Your task to perform on an android device: uninstall "Spotify" Image 0: 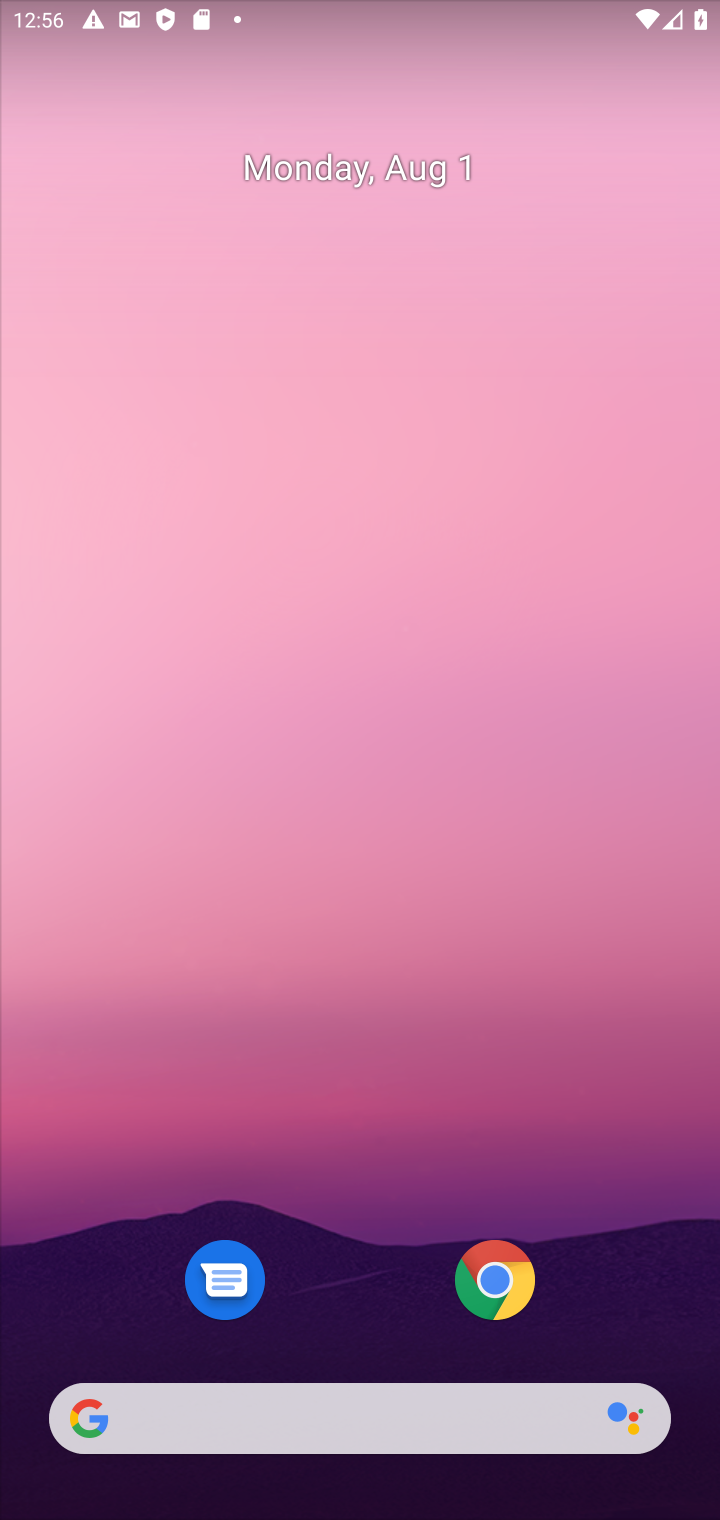
Step 0: drag from (273, 863) to (395, 220)
Your task to perform on an android device: uninstall "Spotify" Image 1: 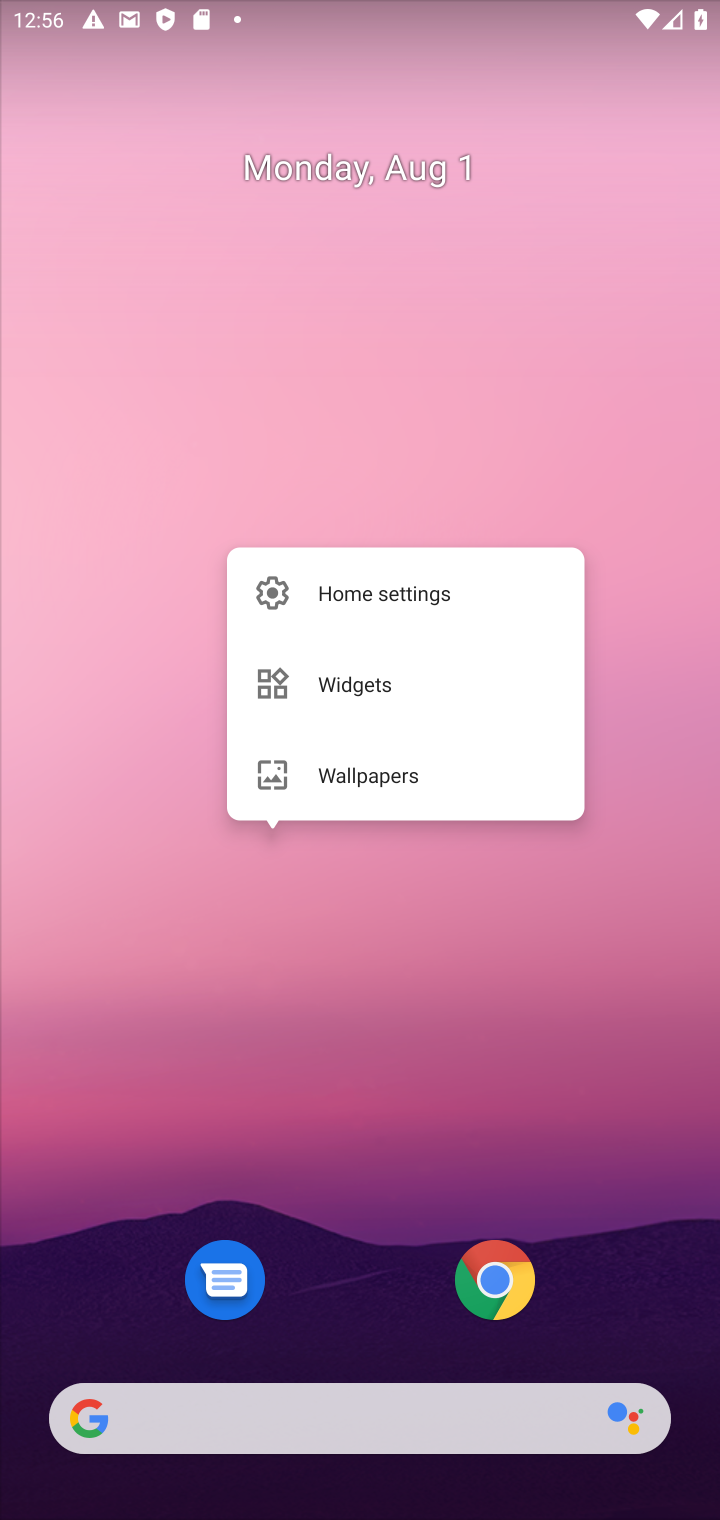
Step 1: click (621, 977)
Your task to perform on an android device: uninstall "Spotify" Image 2: 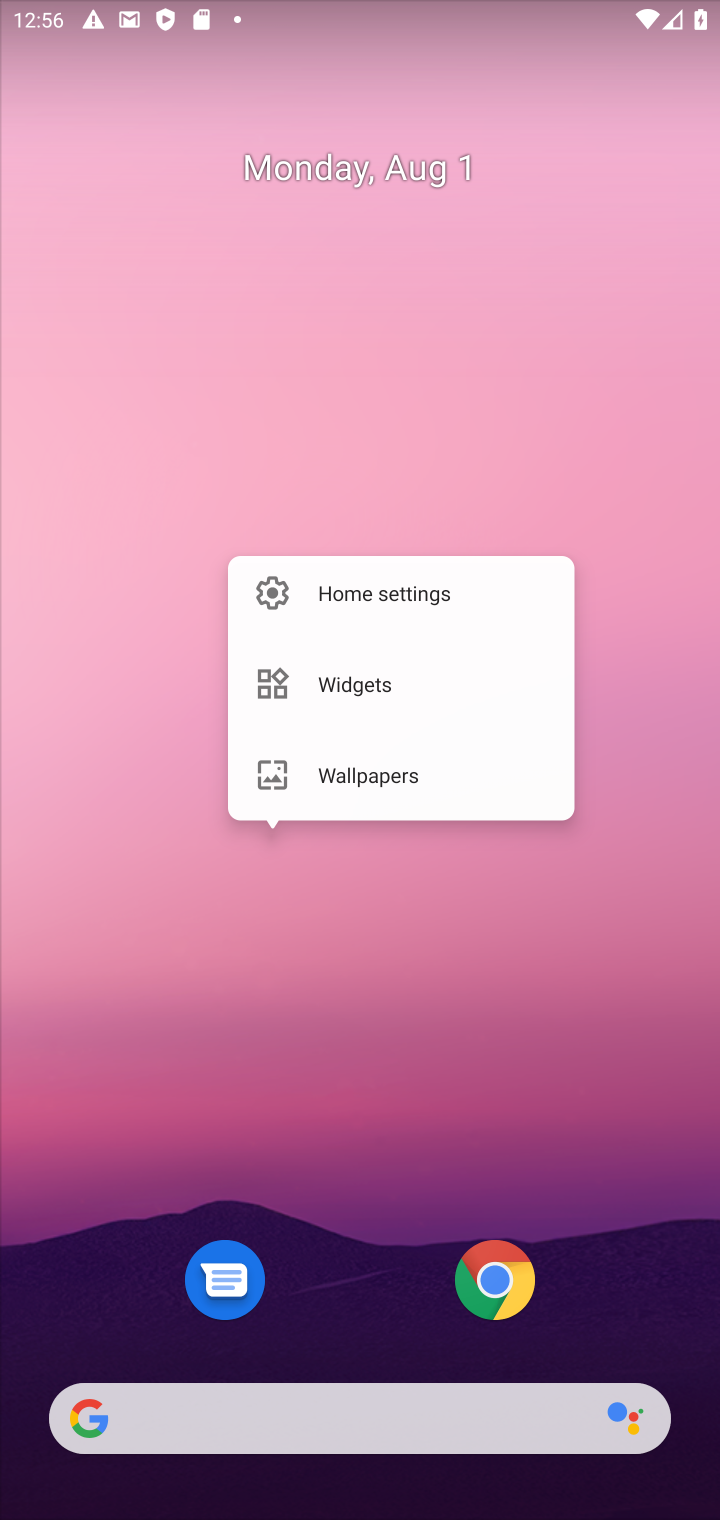
Step 2: drag from (623, 985) to (518, 56)
Your task to perform on an android device: uninstall "Spotify" Image 3: 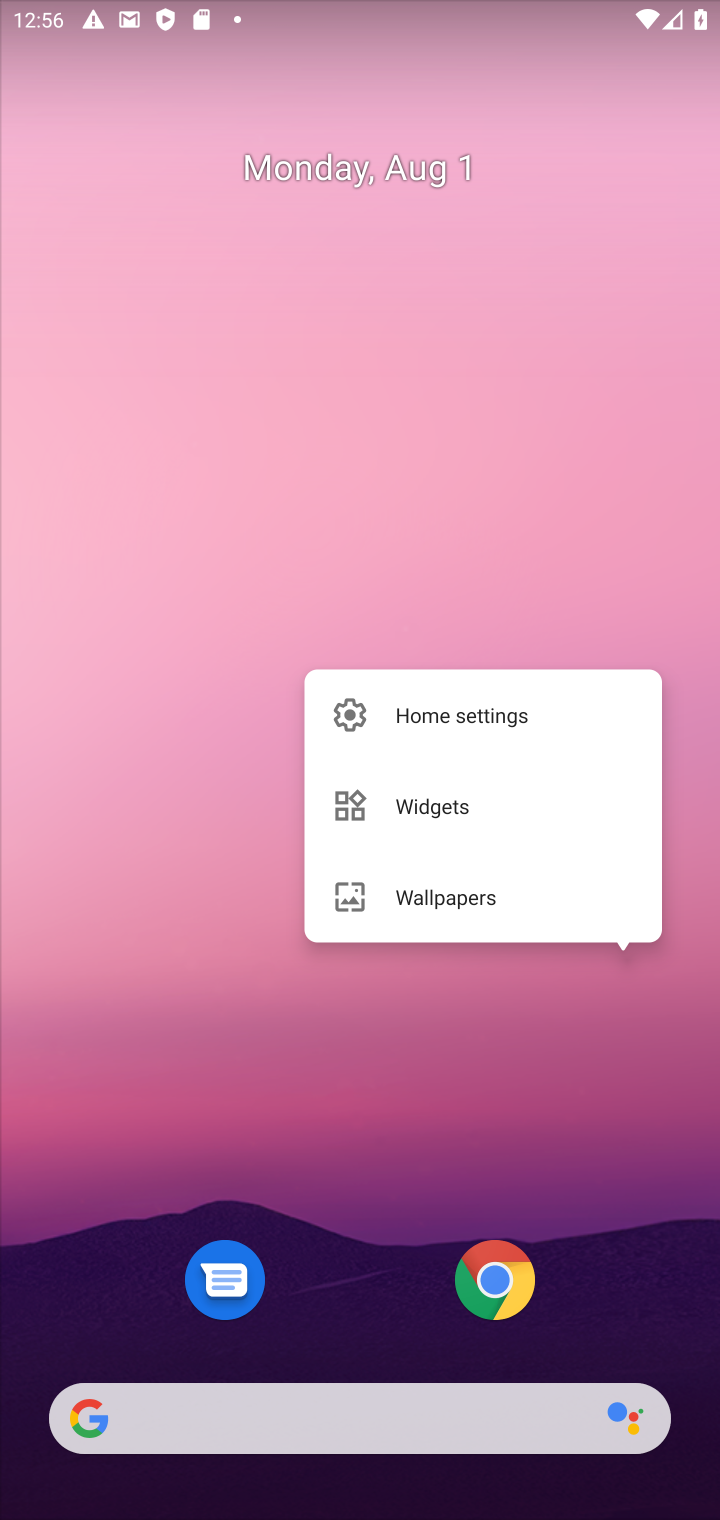
Step 3: click (498, 296)
Your task to perform on an android device: uninstall "Spotify" Image 4: 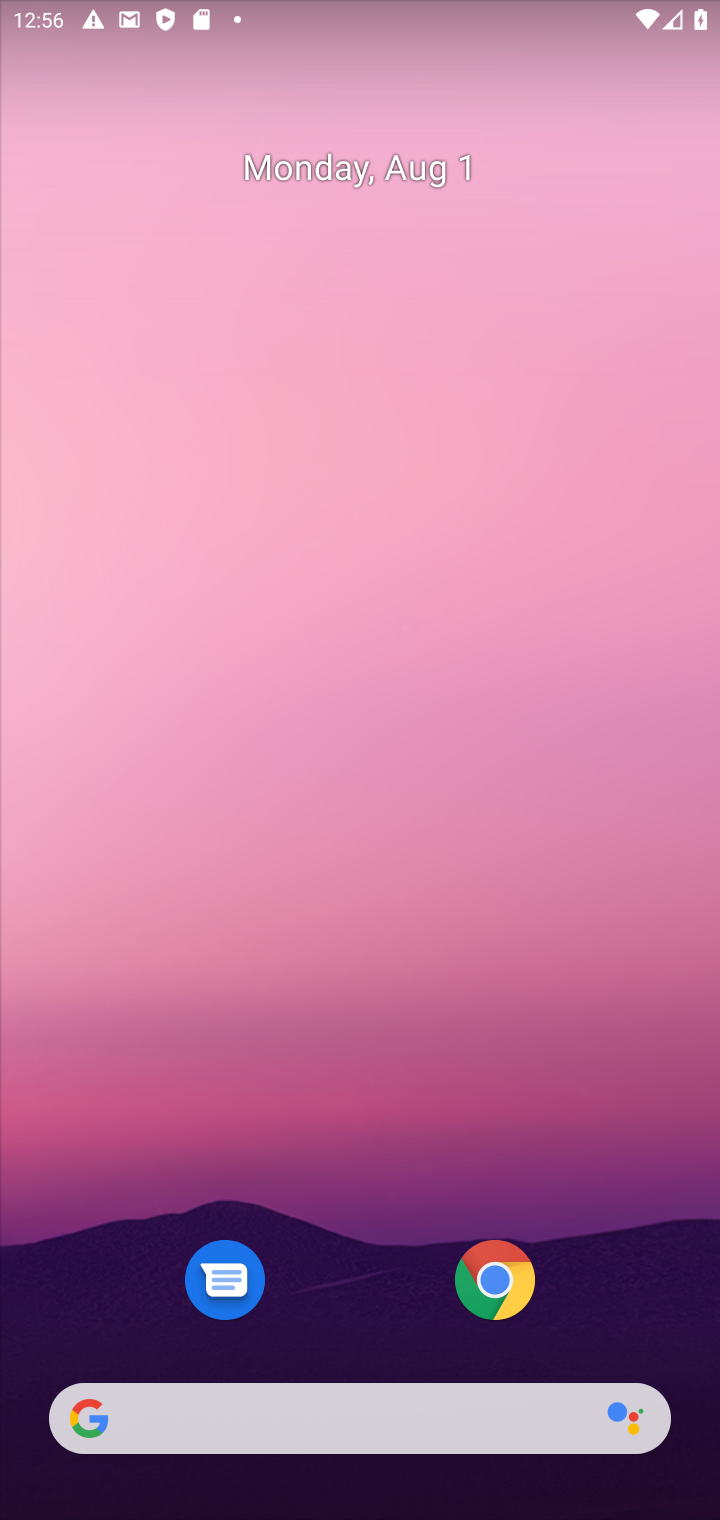
Step 4: drag from (409, 1293) to (477, 63)
Your task to perform on an android device: uninstall "Spotify" Image 5: 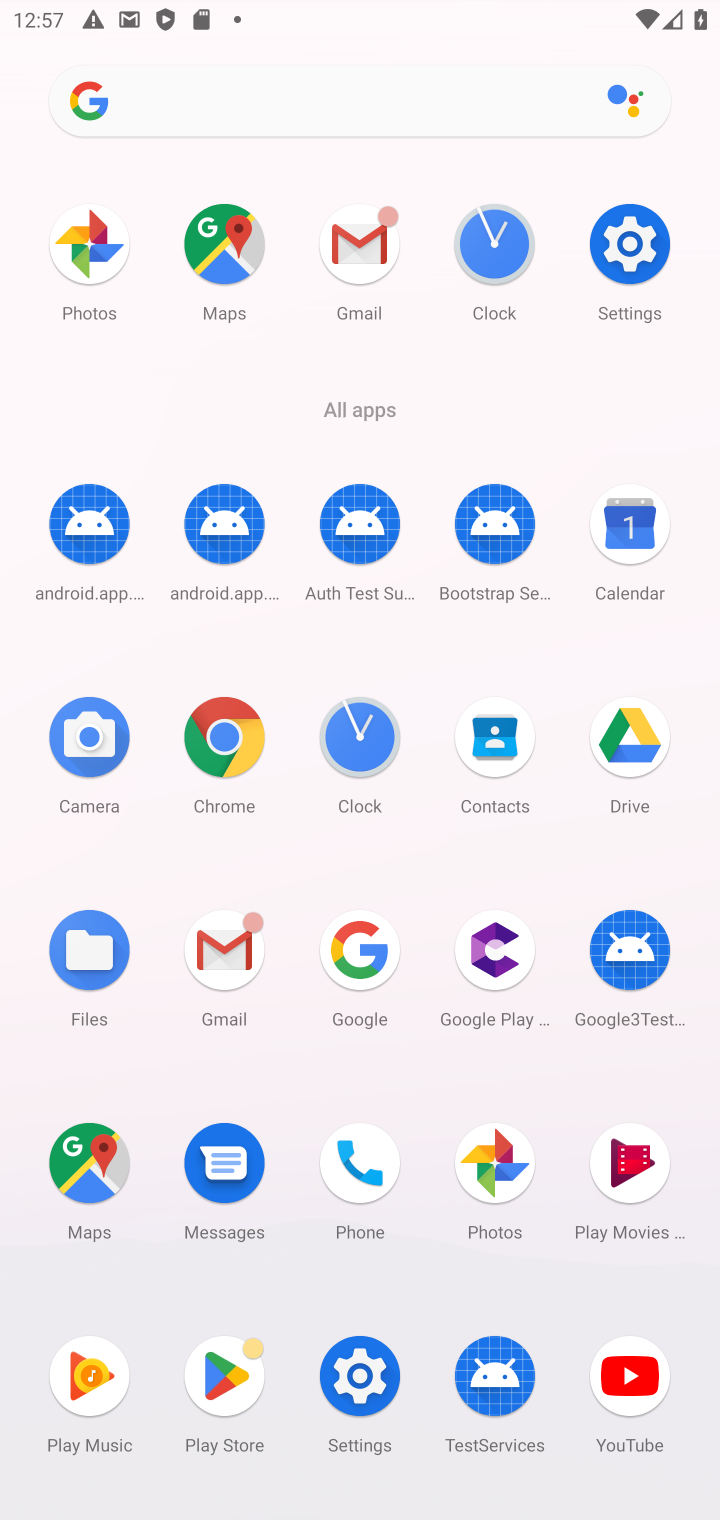
Step 5: click (235, 1360)
Your task to perform on an android device: uninstall "Spotify" Image 6: 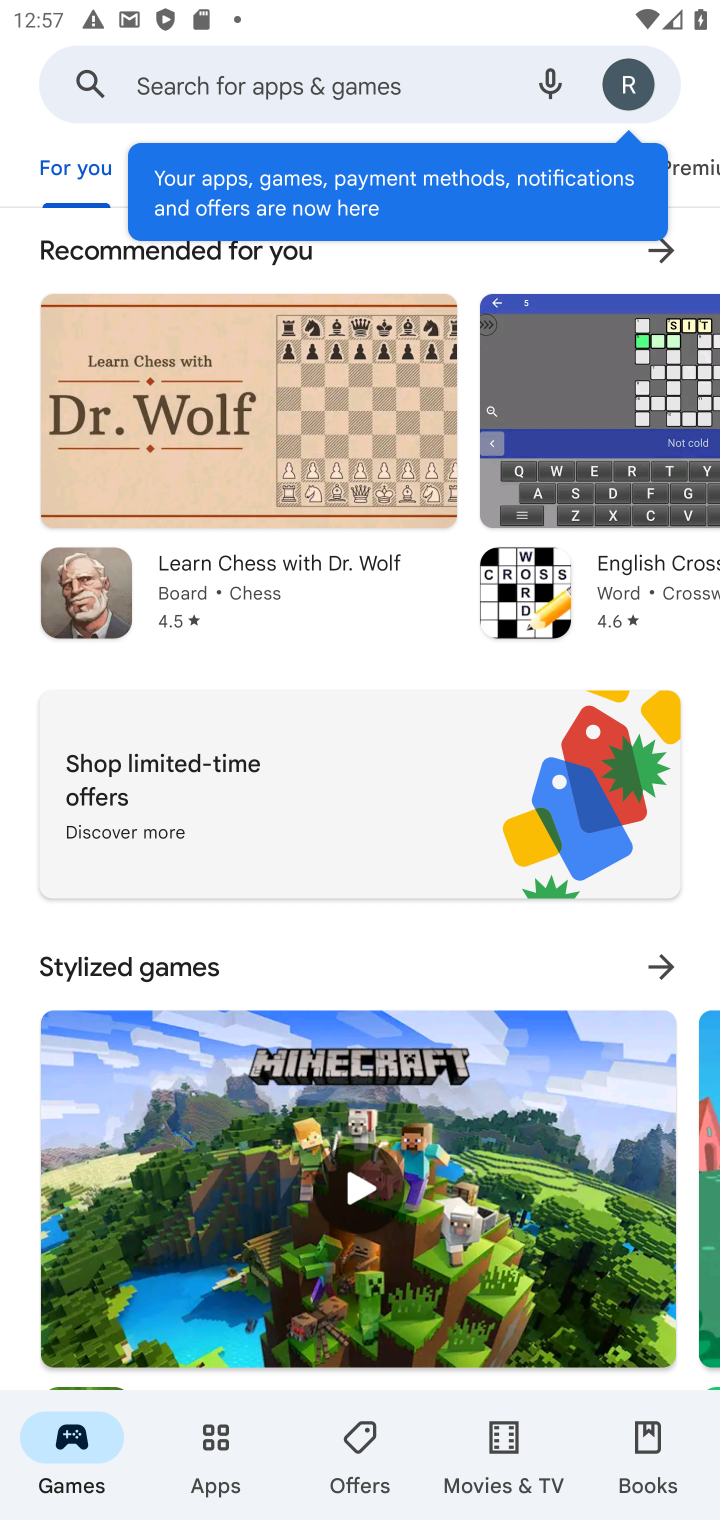
Step 6: click (320, 96)
Your task to perform on an android device: uninstall "Spotify" Image 7: 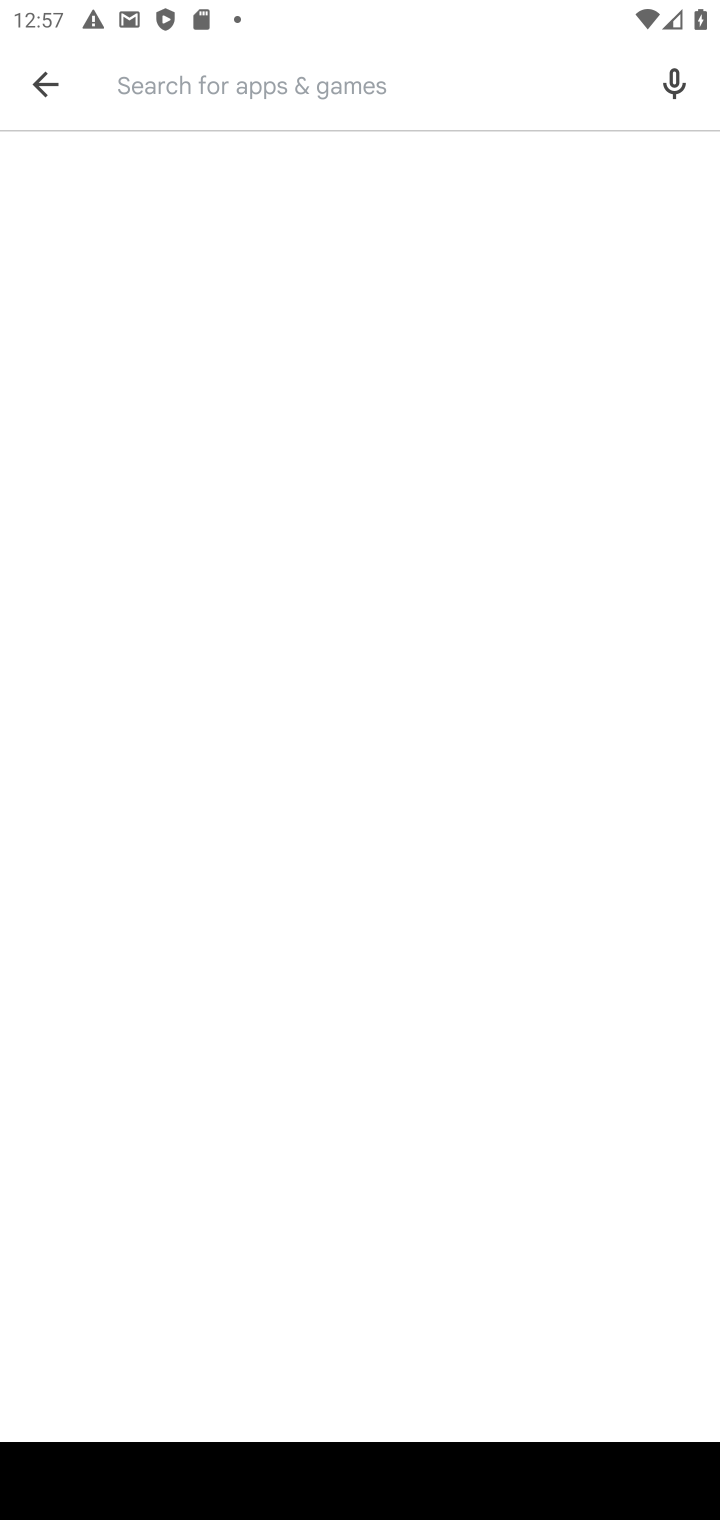
Step 7: type "Spotify"
Your task to perform on an android device: uninstall "Spotify" Image 8: 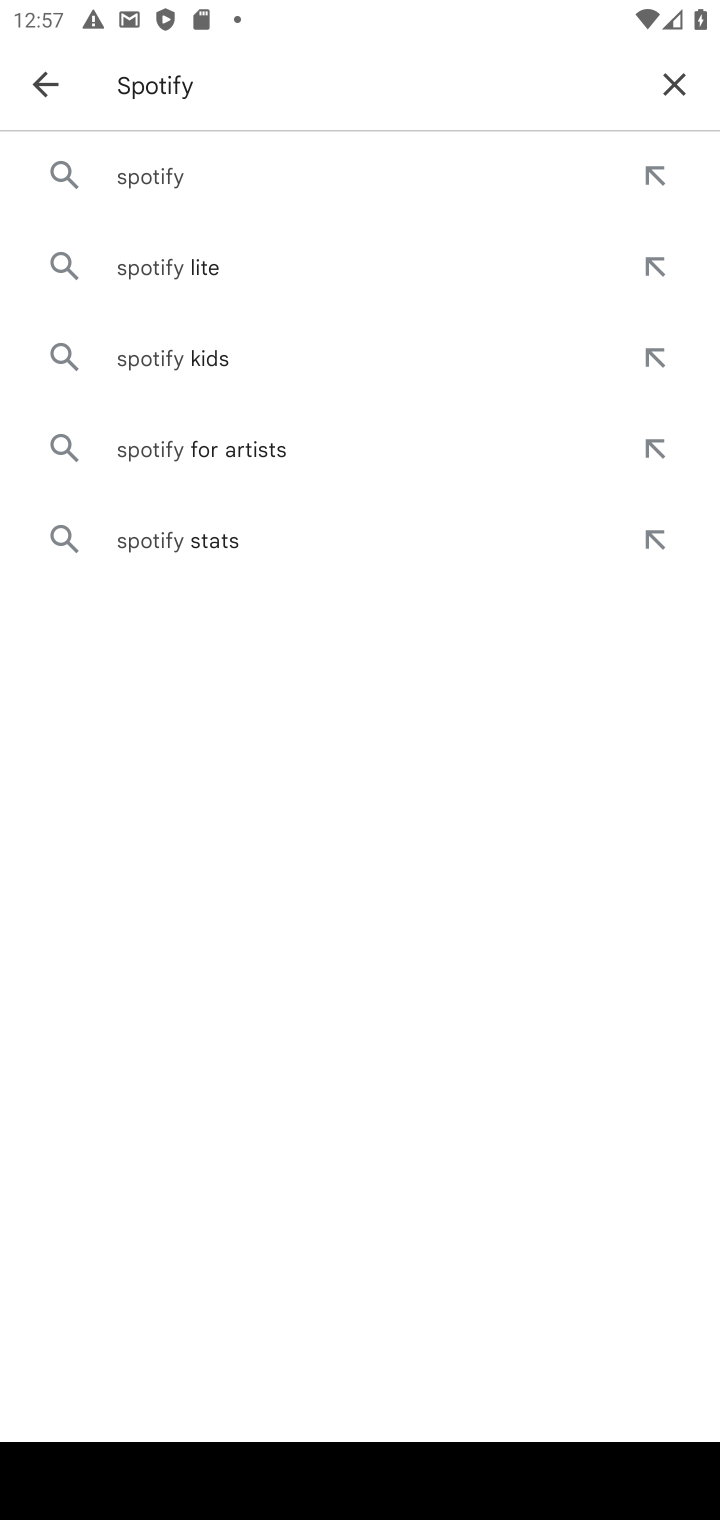
Step 8: press enter
Your task to perform on an android device: uninstall "Spotify" Image 9: 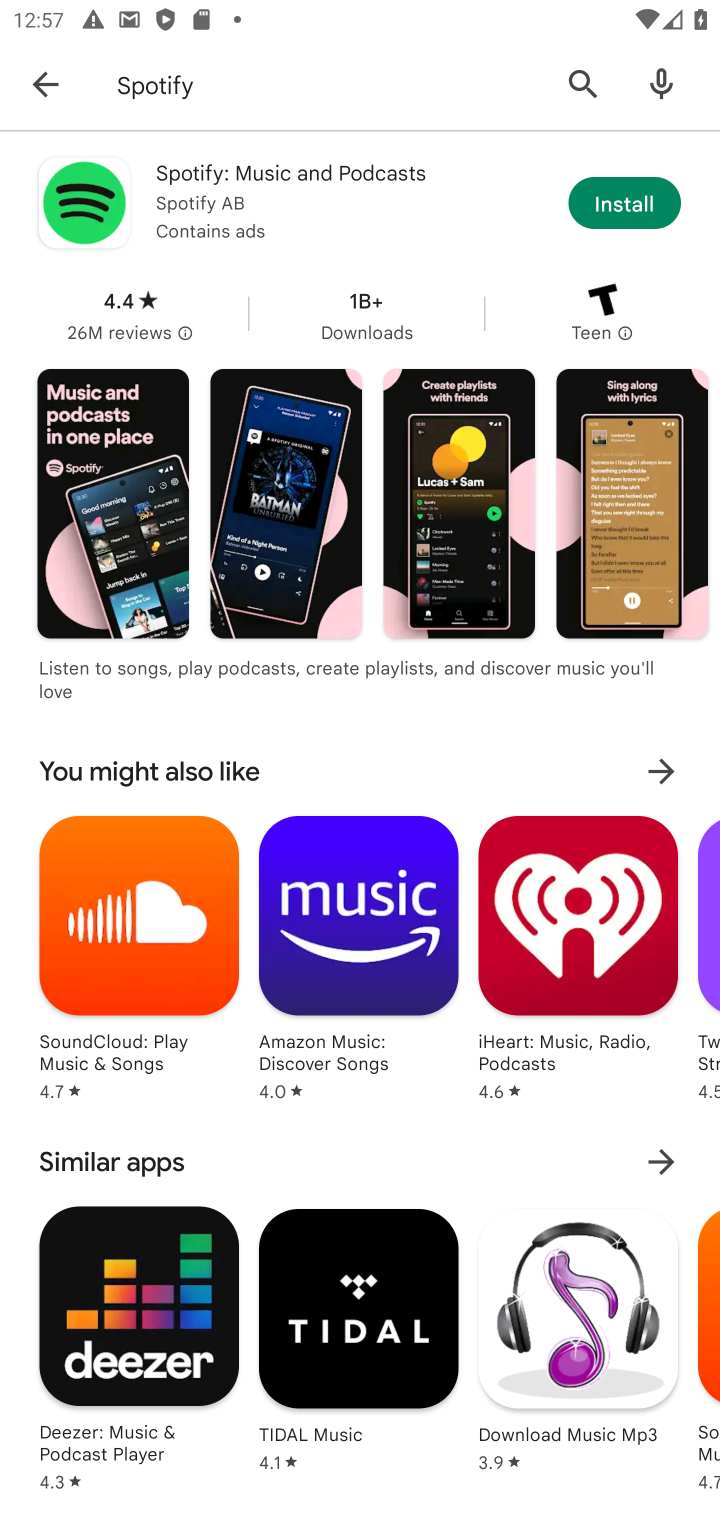
Step 9: task complete